Your task to perform on an android device: open a new tab in the chrome app Image 0: 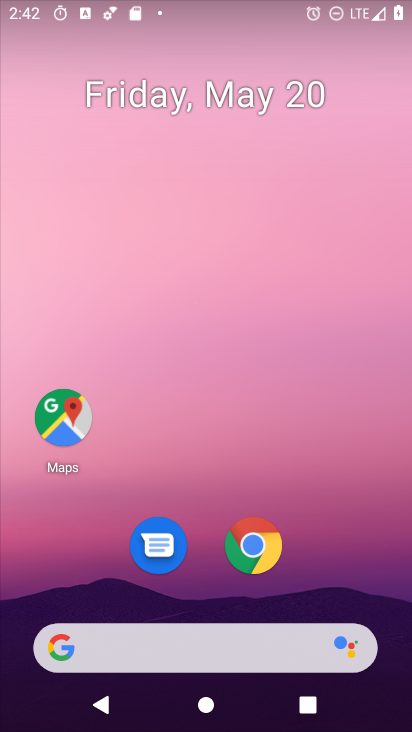
Step 0: drag from (339, 630) to (270, 14)
Your task to perform on an android device: open a new tab in the chrome app Image 1: 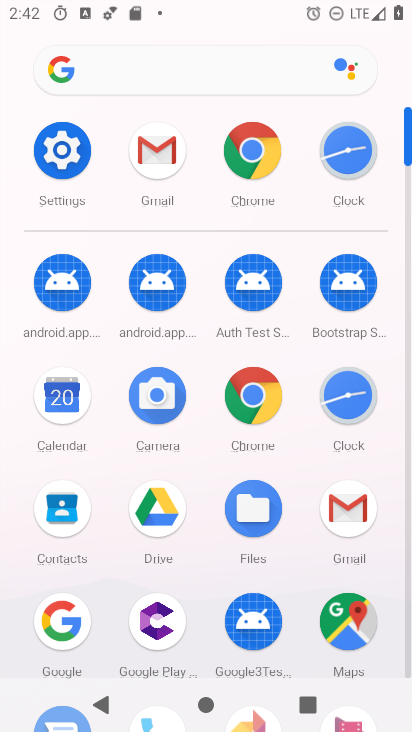
Step 1: click (248, 393)
Your task to perform on an android device: open a new tab in the chrome app Image 2: 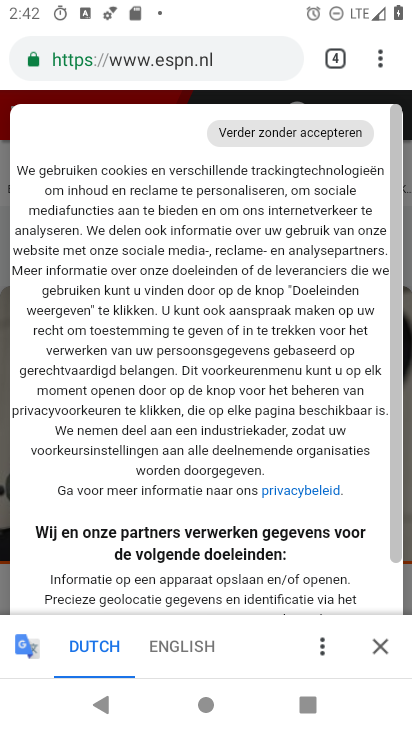
Step 2: click (379, 54)
Your task to perform on an android device: open a new tab in the chrome app Image 3: 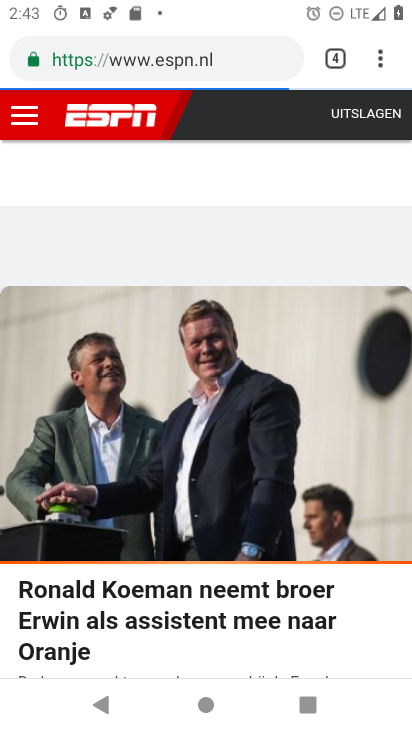
Step 3: click (378, 58)
Your task to perform on an android device: open a new tab in the chrome app Image 4: 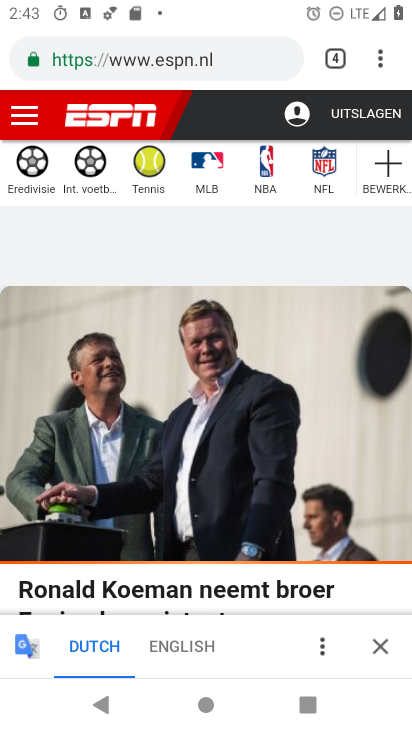
Step 4: click (380, 60)
Your task to perform on an android device: open a new tab in the chrome app Image 5: 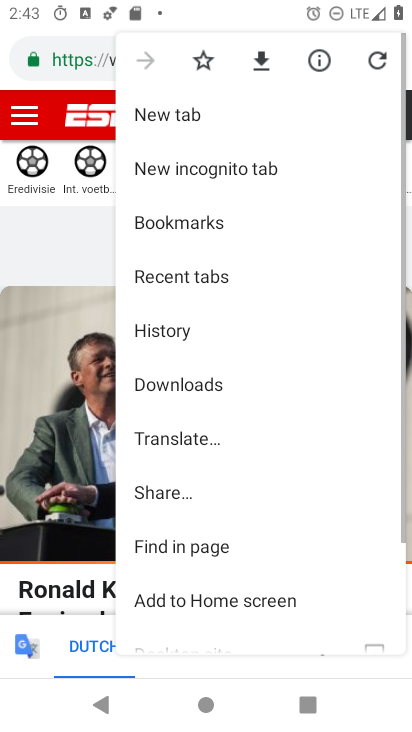
Step 5: click (253, 119)
Your task to perform on an android device: open a new tab in the chrome app Image 6: 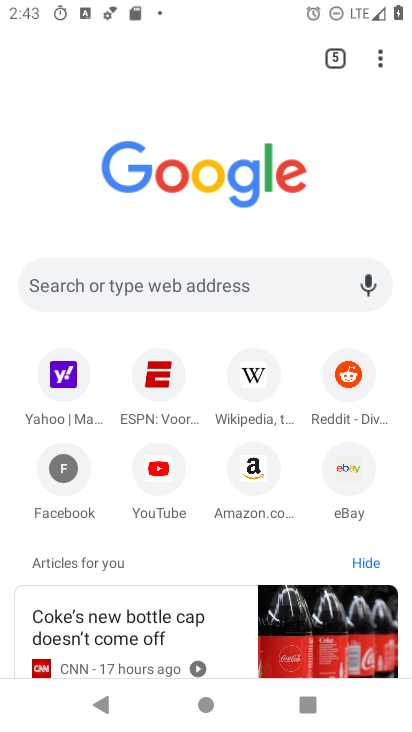
Step 6: task complete